Your task to perform on an android device: manage bookmarks in the chrome app Image 0: 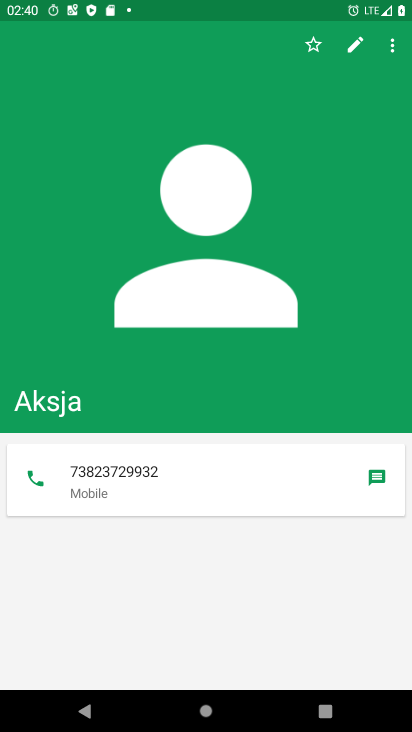
Step 0: click (271, 315)
Your task to perform on an android device: manage bookmarks in the chrome app Image 1: 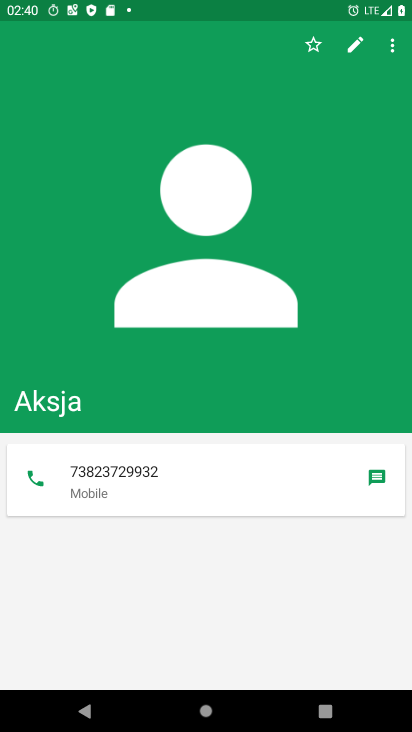
Step 1: press home button
Your task to perform on an android device: manage bookmarks in the chrome app Image 2: 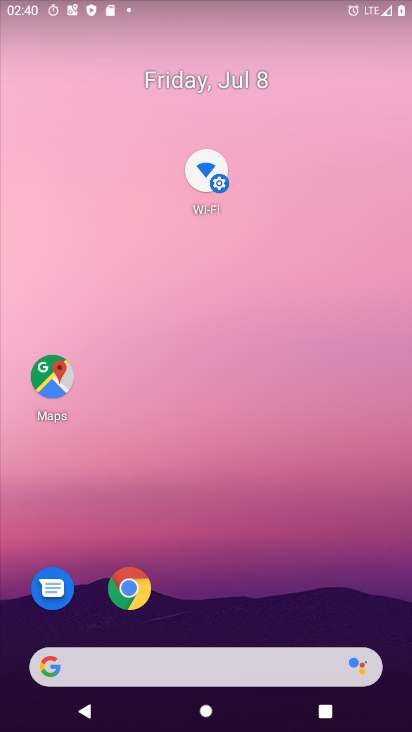
Step 2: click (127, 584)
Your task to perform on an android device: manage bookmarks in the chrome app Image 3: 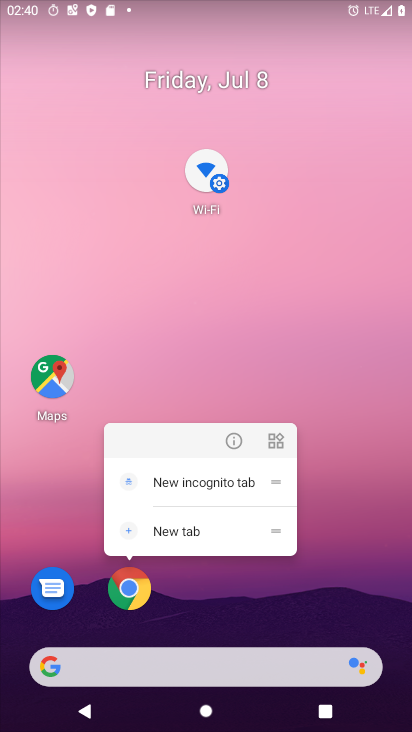
Step 3: click (230, 452)
Your task to perform on an android device: manage bookmarks in the chrome app Image 4: 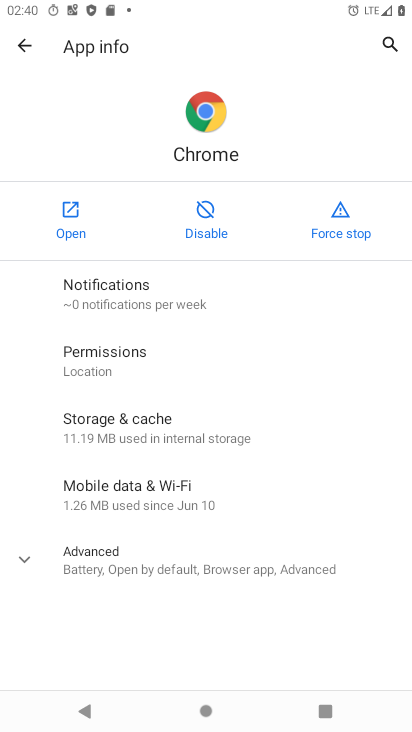
Step 4: click (72, 220)
Your task to perform on an android device: manage bookmarks in the chrome app Image 5: 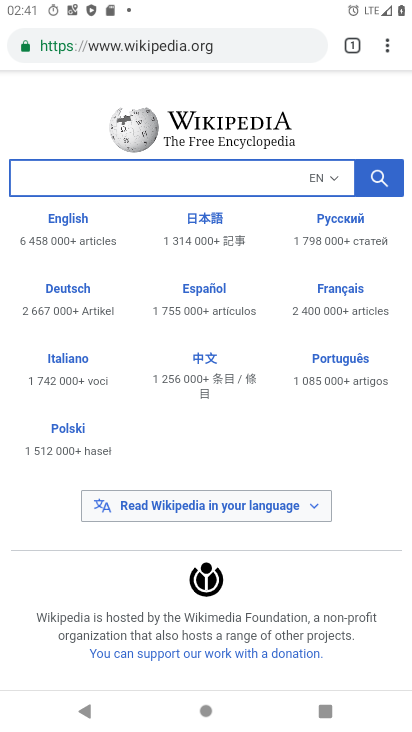
Step 5: click (395, 49)
Your task to perform on an android device: manage bookmarks in the chrome app Image 6: 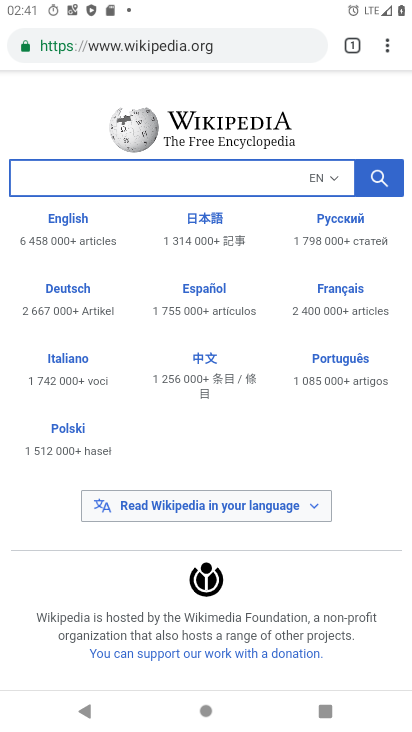
Step 6: task complete